Your task to perform on an android device: toggle wifi Image 0: 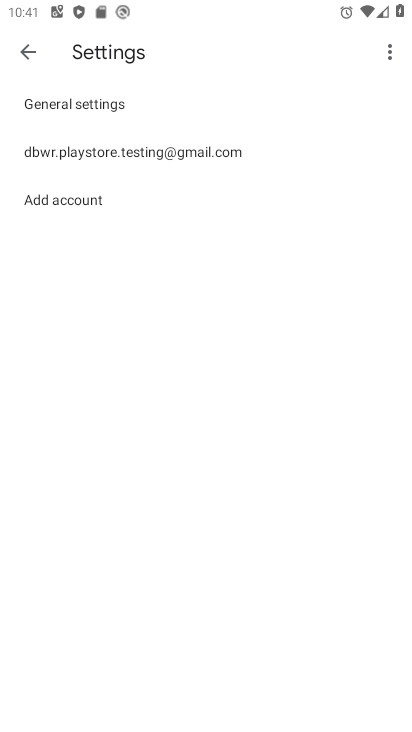
Step 0: press home button
Your task to perform on an android device: toggle wifi Image 1: 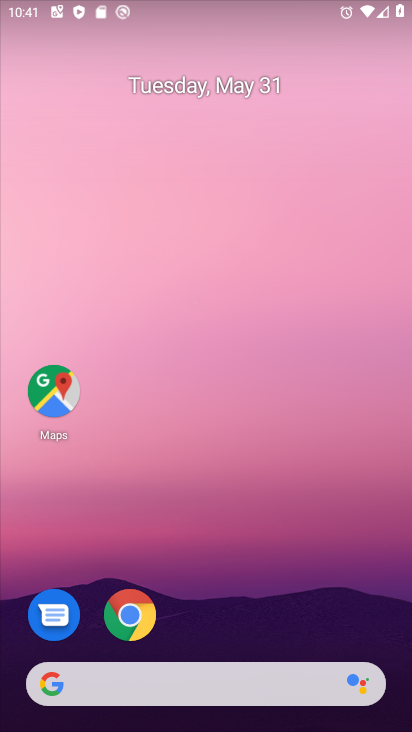
Step 1: drag from (364, 568) to (404, 48)
Your task to perform on an android device: toggle wifi Image 2: 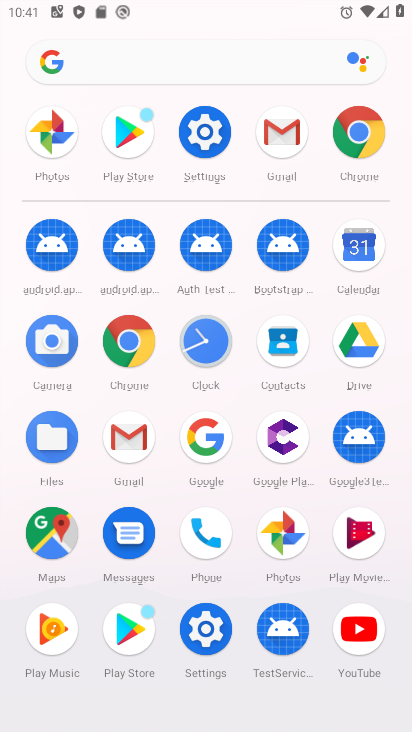
Step 2: click (208, 142)
Your task to perform on an android device: toggle wifi Image 3: 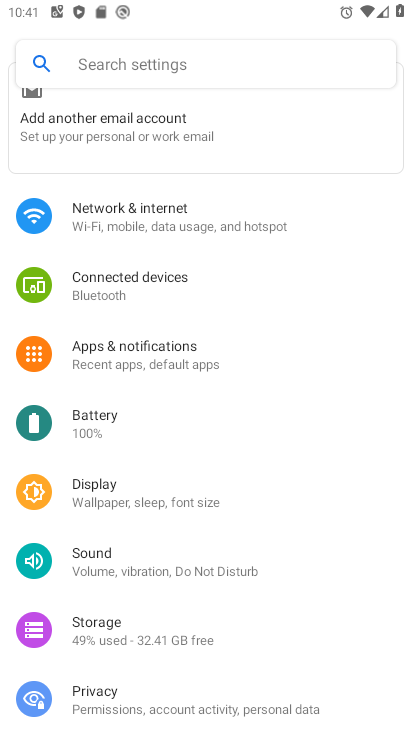
Step 3: click (156, 207)
Your task to perform on an android device: toggle wifi Image 4: 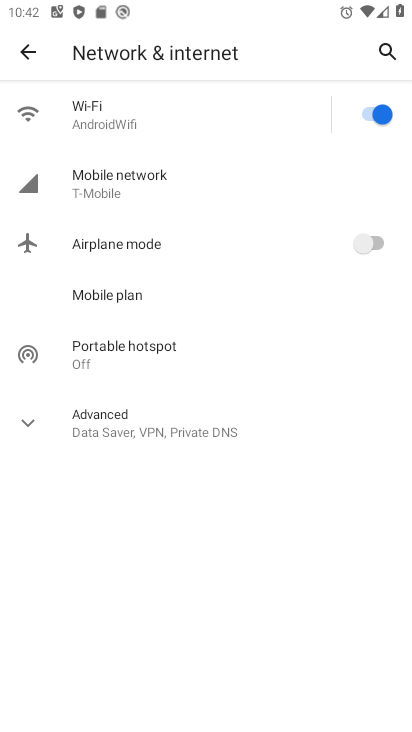
Step 4: click (367, 115)
Your task to perform on an android device: toggle wifi Image 5: 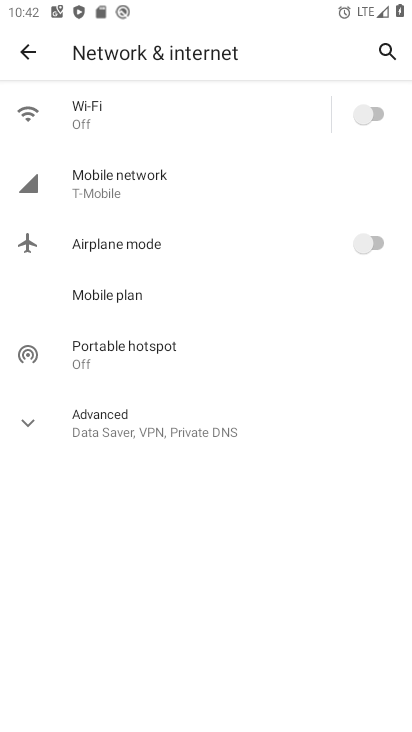
Step 5: task complete